Your task to perform on an android device: add a contact in the contacts app Image 0: 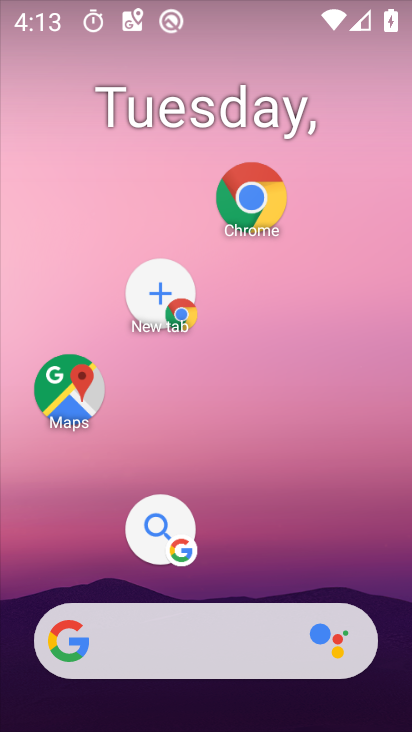
Step 0: drag from (192, 515) to (271, 154)
Your task to perform on an android device: add a contact in the contacts app Image 1: 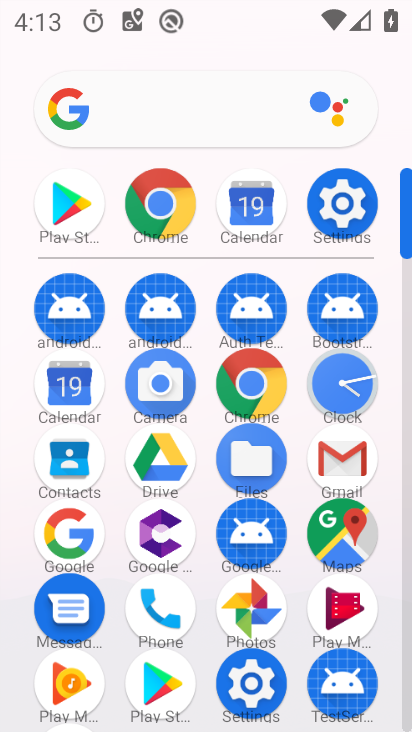
Step 1: click (60, 464)
Your task to perform on an android device: add a contact in the contacts app Image 2: 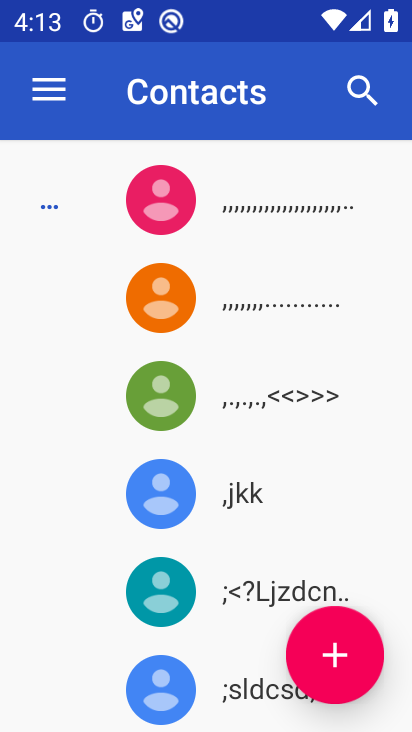
Step 2: click (332, 653)
Your task to perform on an android device: add a contact in the contacts app Image 3: 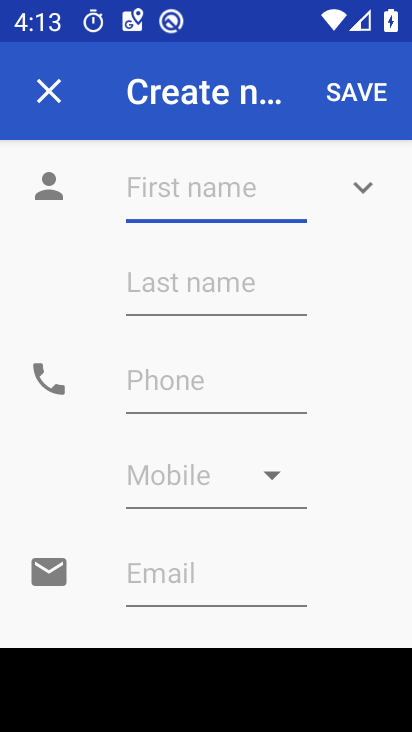
Step 3: type "pallu"
Your task to perform on an android device: add a contact in the contacts app Image 4: 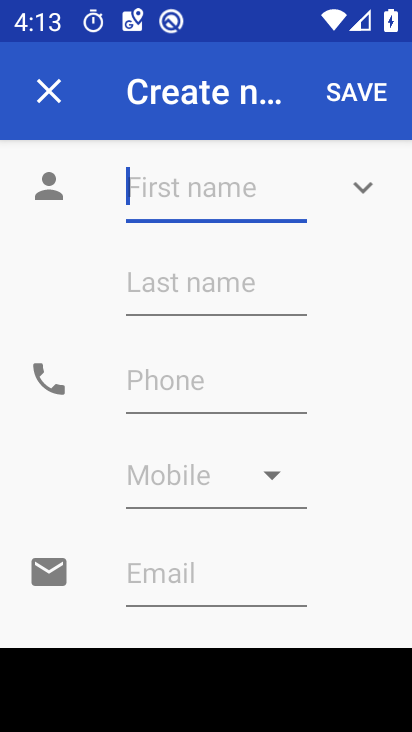
Step 4: click (242, 298)
Your task to perform on an android device: add a contact in the contacts app Image 5: 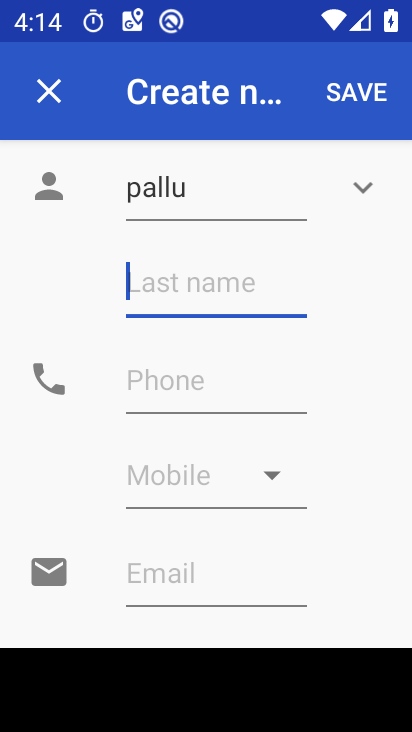
Step 5: type "tripti"
Your task to perform on an android device: add a contact in the contacts app Image 6: 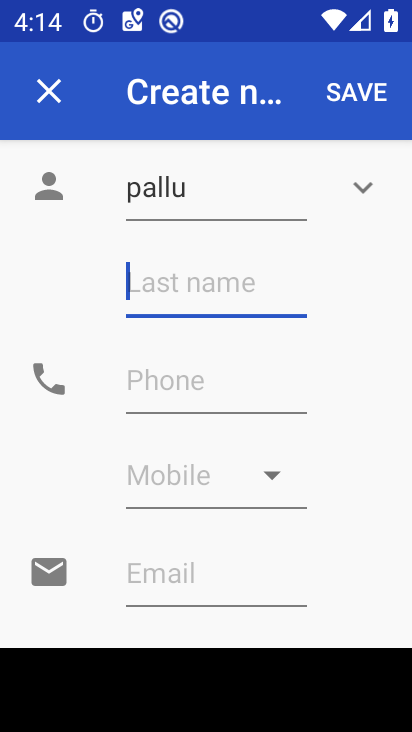
Step 6: click (183, 400)
Your task to perform on an android device: add a contact in the contacts app Image 7: 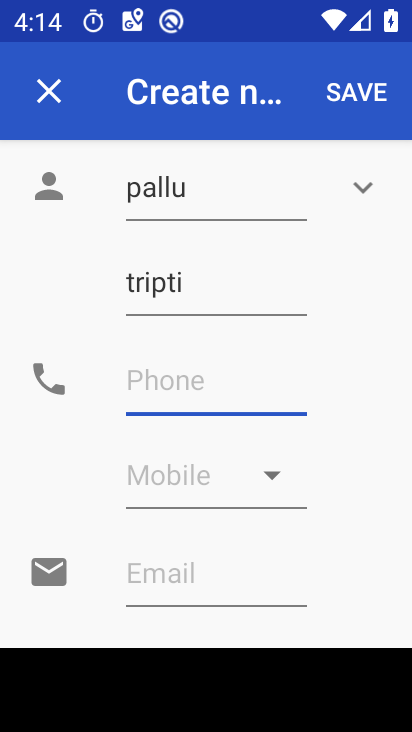
Step 7: type "7678546798"
Your task to perform on an android device: add a contact in the contacts app Image 8: 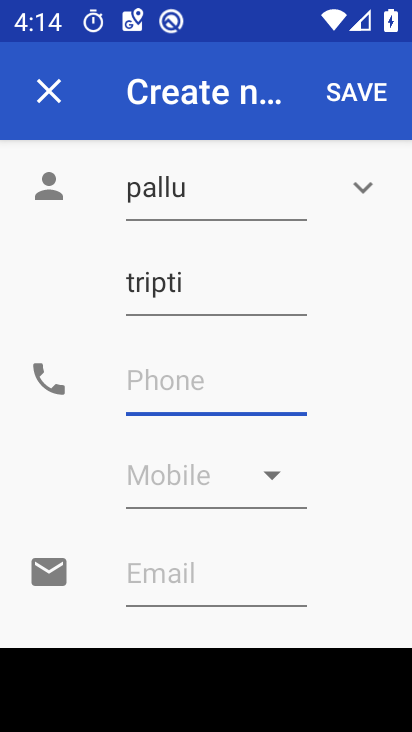
Step 8: click (196, 566)
Your task to perform on an android device: add a contact in the contacts app Image 9: 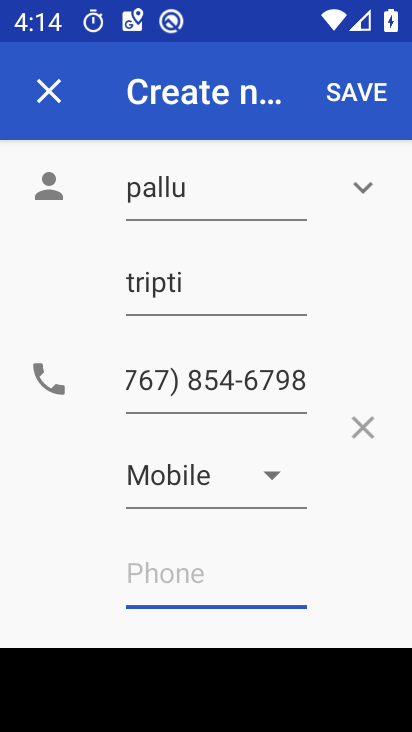
Step 9: task complete